Your task to perform on an android device: Go to eBay Image 0: 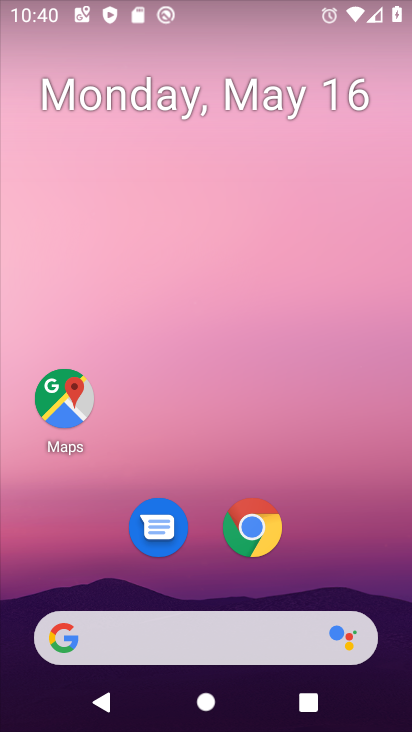
Step 0: click (251, 541)
Your task to perform on an android device: Go to eBay Image 1: 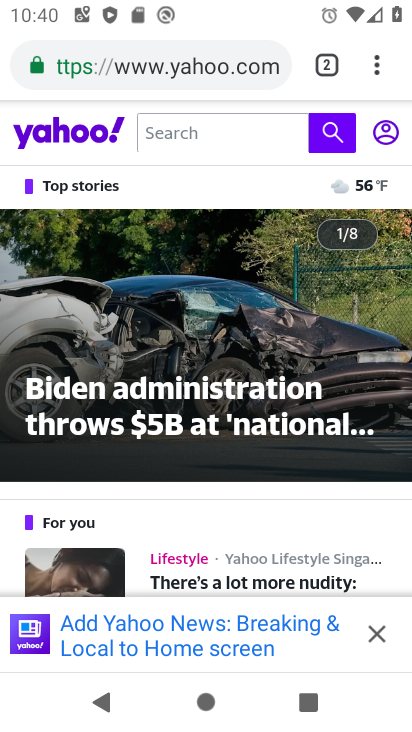
Step 1: click (144, 65)
Your task to perform on an android device: Go to eBay Image 2: 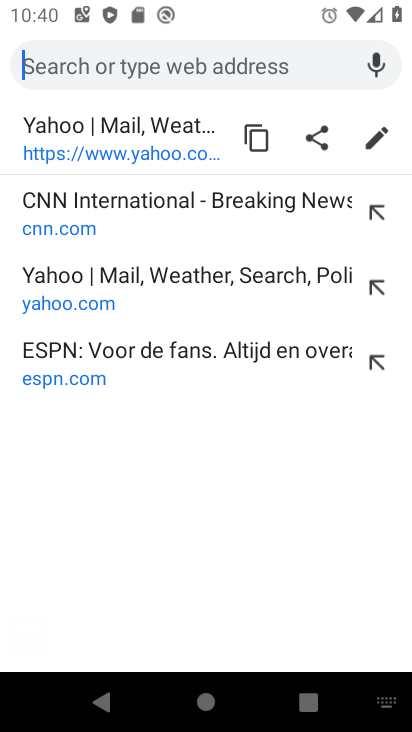
Step 2: type "ebay"
Your task to perform on an android device: Go to eBay Image 3: 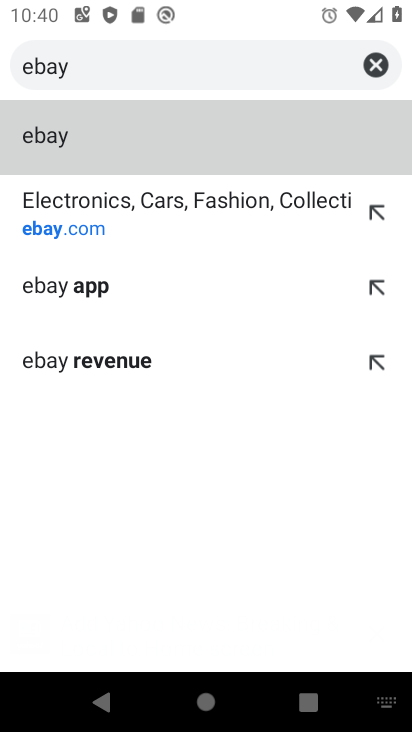
Step 3: click (53, 136)
Your task to perform on an android device: Go to eBay Image 4: 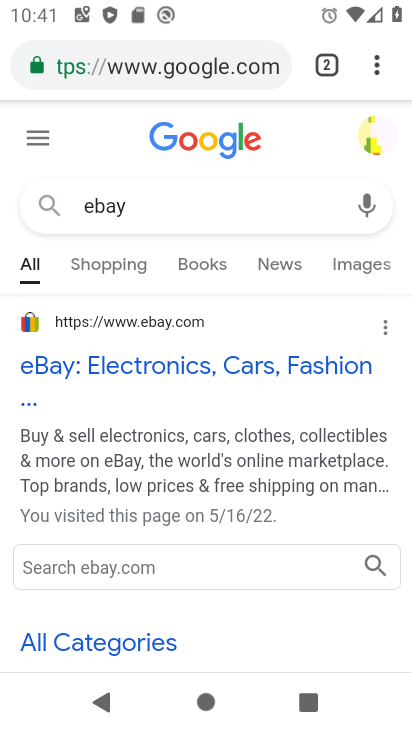
Step 4: click (65, 373)
Your task to perform on an android device: Go to eBay Image 5: 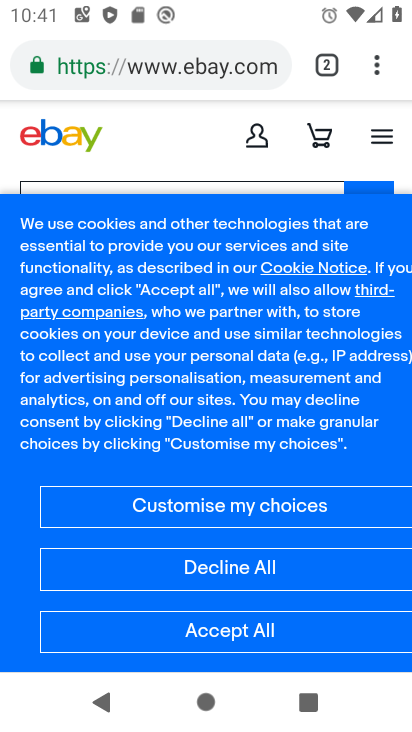
Step 5: task complete